Your task to perform on an android device: open app "Airtel Thanks" (install if not already installed) Image 0: 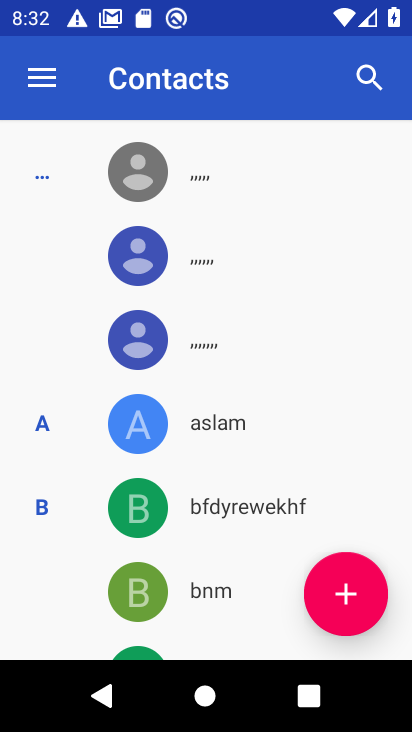
Step 0: press home button
Your task to perform on an android device: open app "Airtel Thanks" (install if not already installed) Image 1: 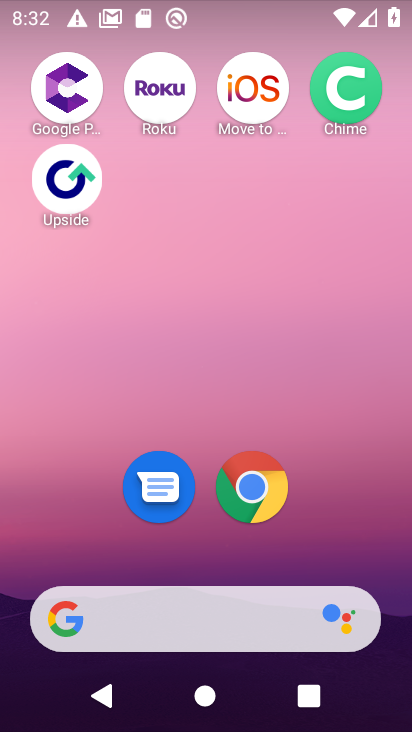
Step 1: drag from (156, 481) to (179, 9)
Your task to perform on an android device: open app "Airtel Thanks" (install if not already installed) Image 2: 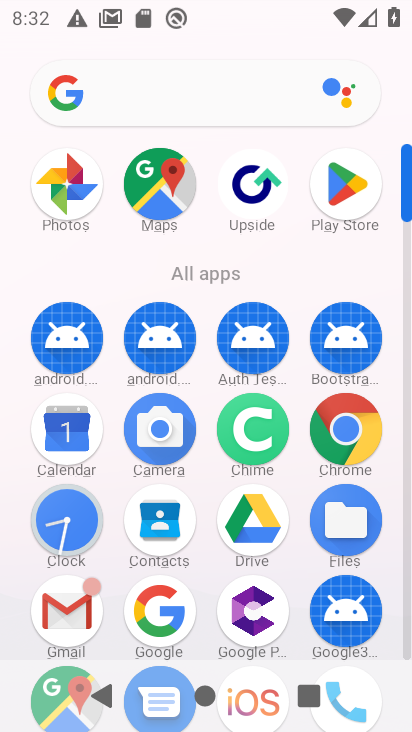
Step 2: click (341, 194)
Your task to perform on an android device: open app "Airtel Thanks" (install if not already installed) Image 3: 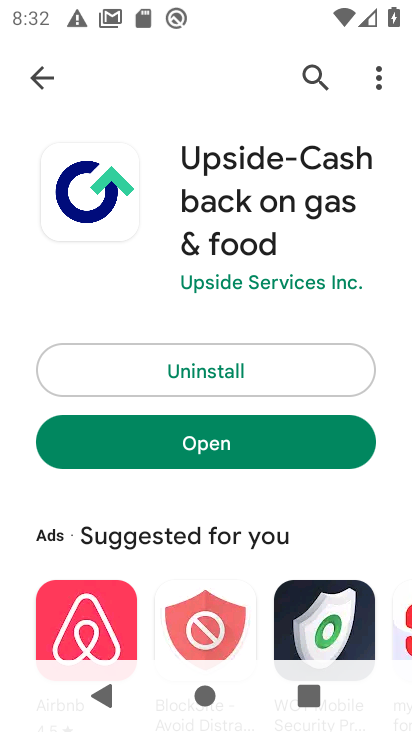
Step 3: click (40, 84)
Your task to perform on an android device: open app "Airtel Thanks" (install if not already installed) Image 4: 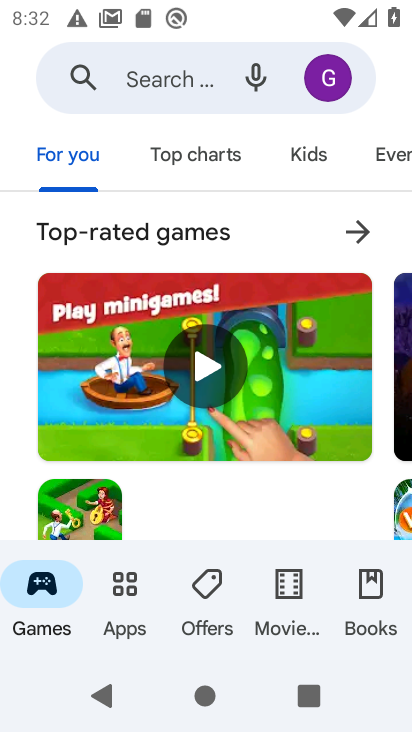
Step 4: click (134, 79)
Your task to perform on an android device: open app "Airtel Thanks" (install if not already installed) Image 5: 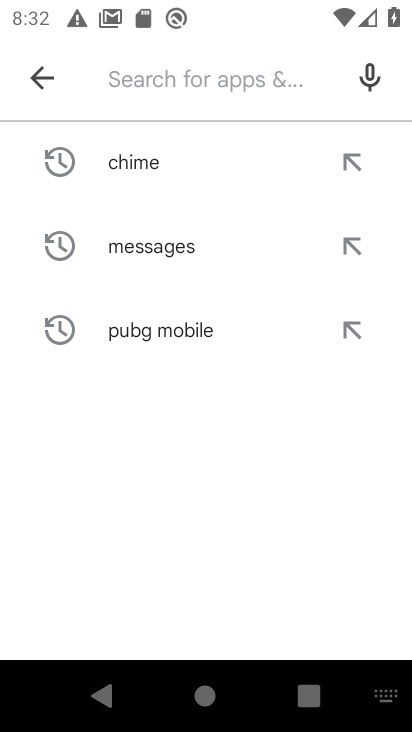
Step 5: type "Airtel Thanks"
Your task to perform on an android device: open app "Airtel Thanks" (install if not already installed) Image 6: 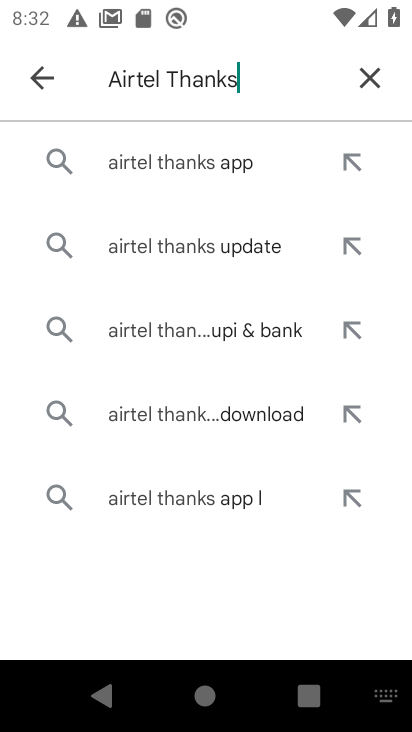
Step 6: click (161, 167)
Your task to perform on an android device: open app "Airtel Thanks" (install if not already installed) Image 7: 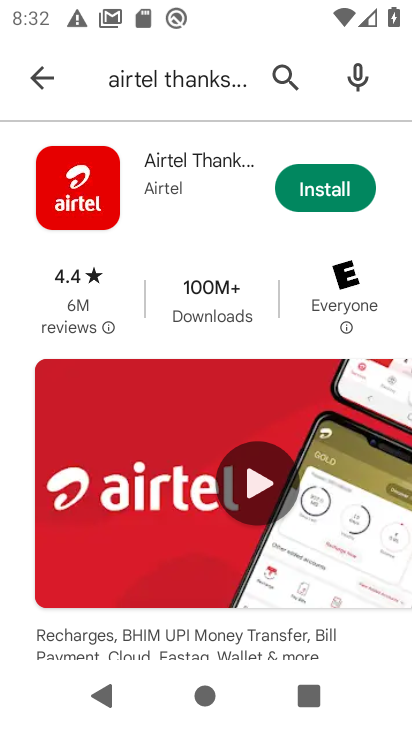
Step 7: click (313, 183)
Your task to perform on an android device: open app "Airtel Thanks" (install if not already installed) Image 8: 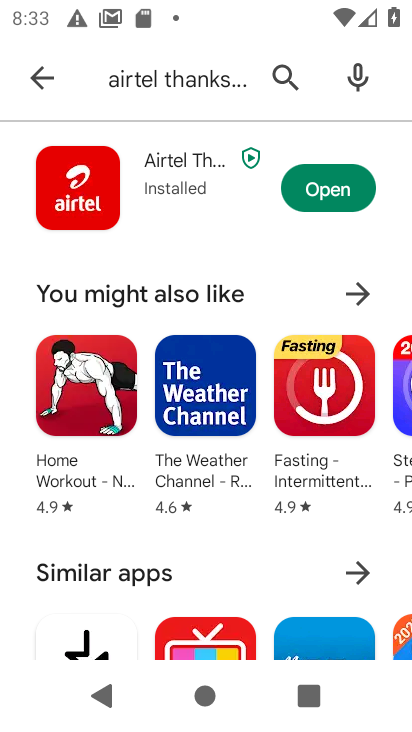
Step 8: click (313, 183)
Your task to perform on an android device: open app "Airtel Thanks" (install if not already installed) Image 9: 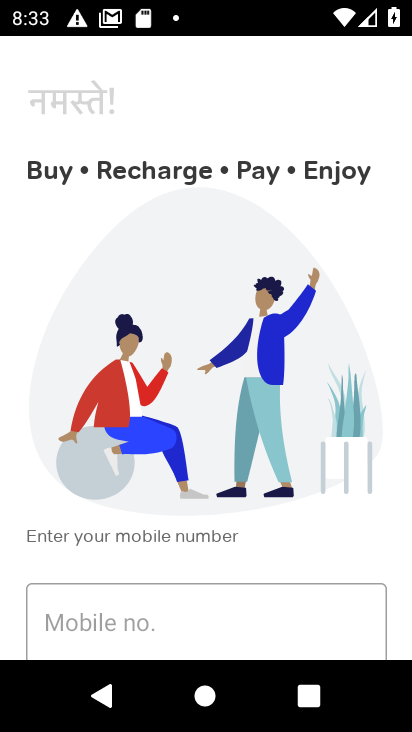
Step 9: task complete